Your task to perform on an android device: uninstall "Venmo" Image 0: 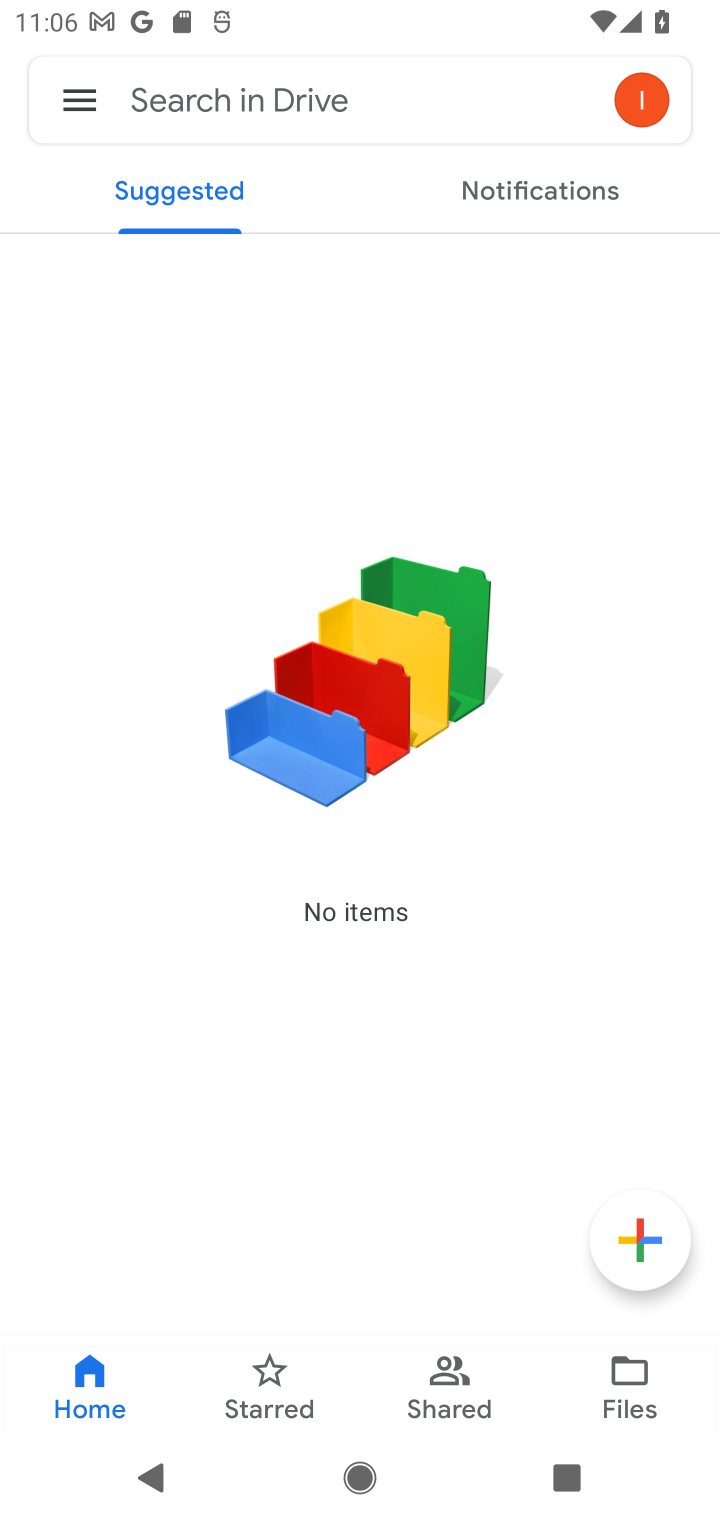
Step 0: press home button
Your task to perform on an android device: uninstall "Venmo" Image 1: 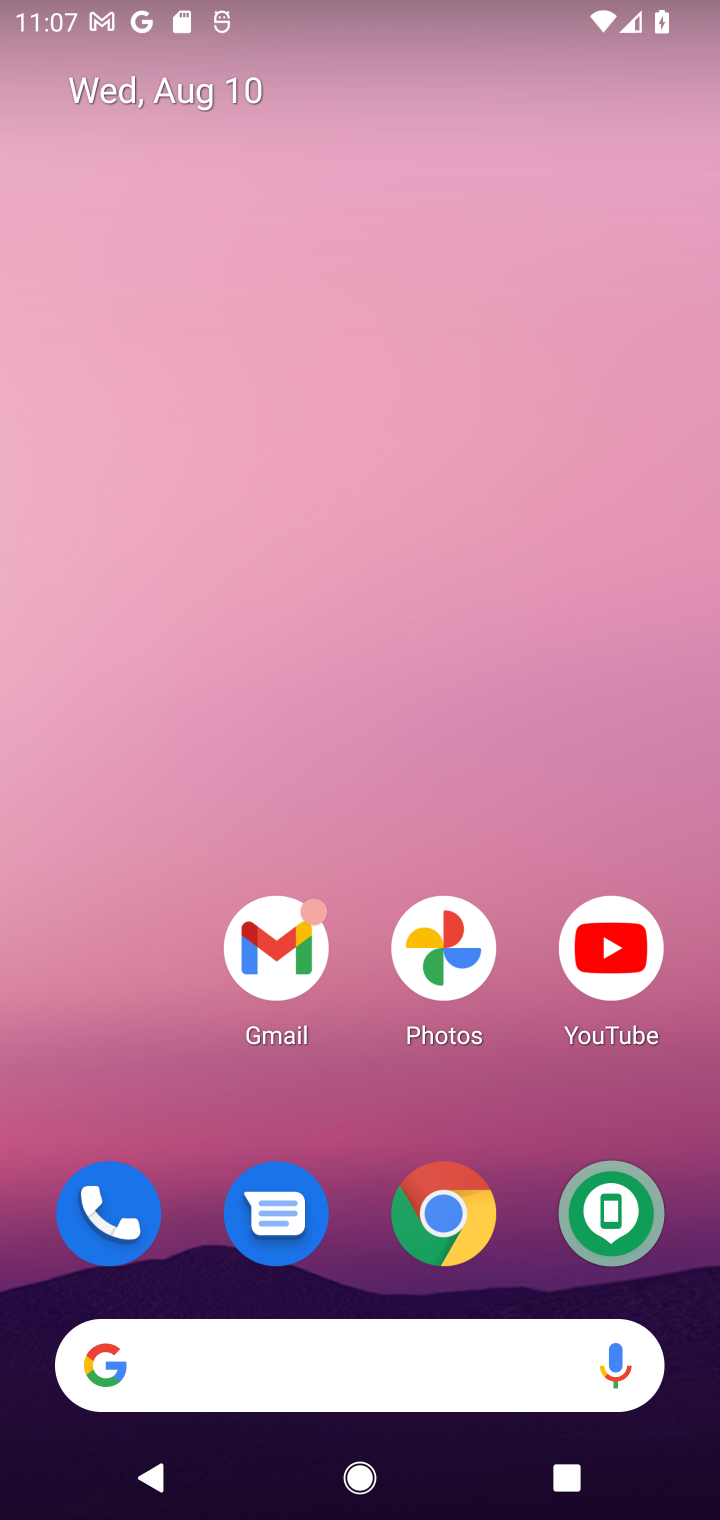
Step 1: drag from (407, 1349) to (404, 337)
Your task to perform on an android device: uninstall "Venmo" Image 2: 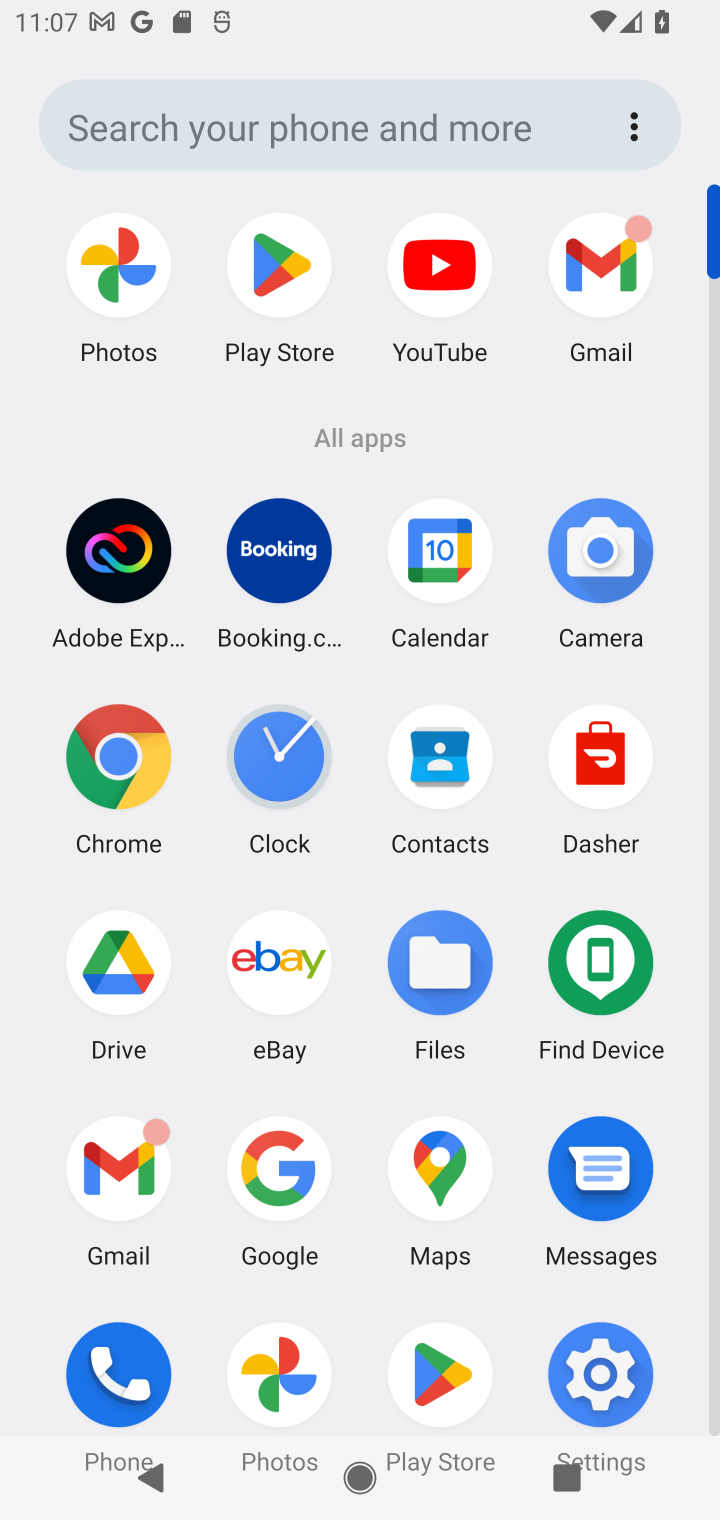
Step 2: click (283, 269)
Your task to perform on an android device: uninstall "Venmo" Image 3: 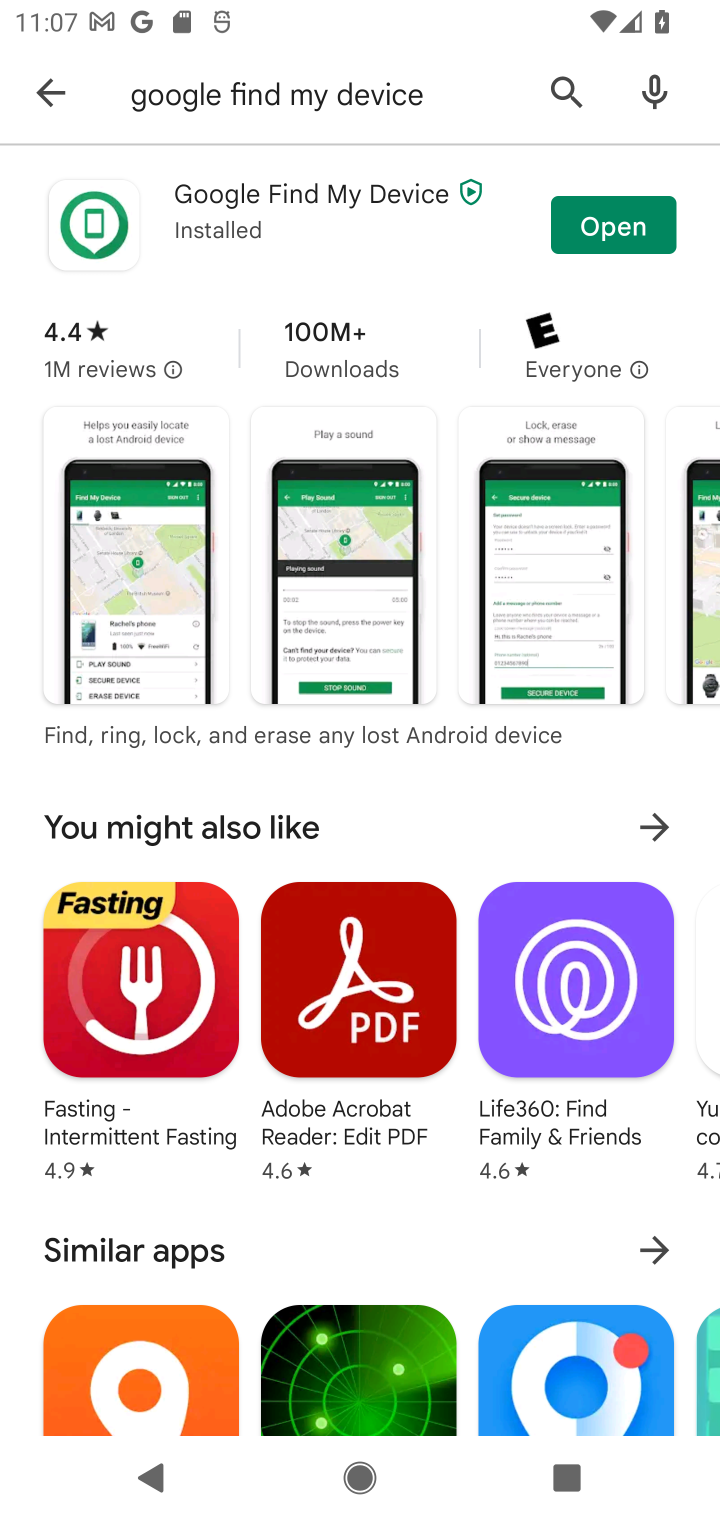
Step 3: press back button
Your task to perform on an android device: uninstall "Venmo" Image 4: 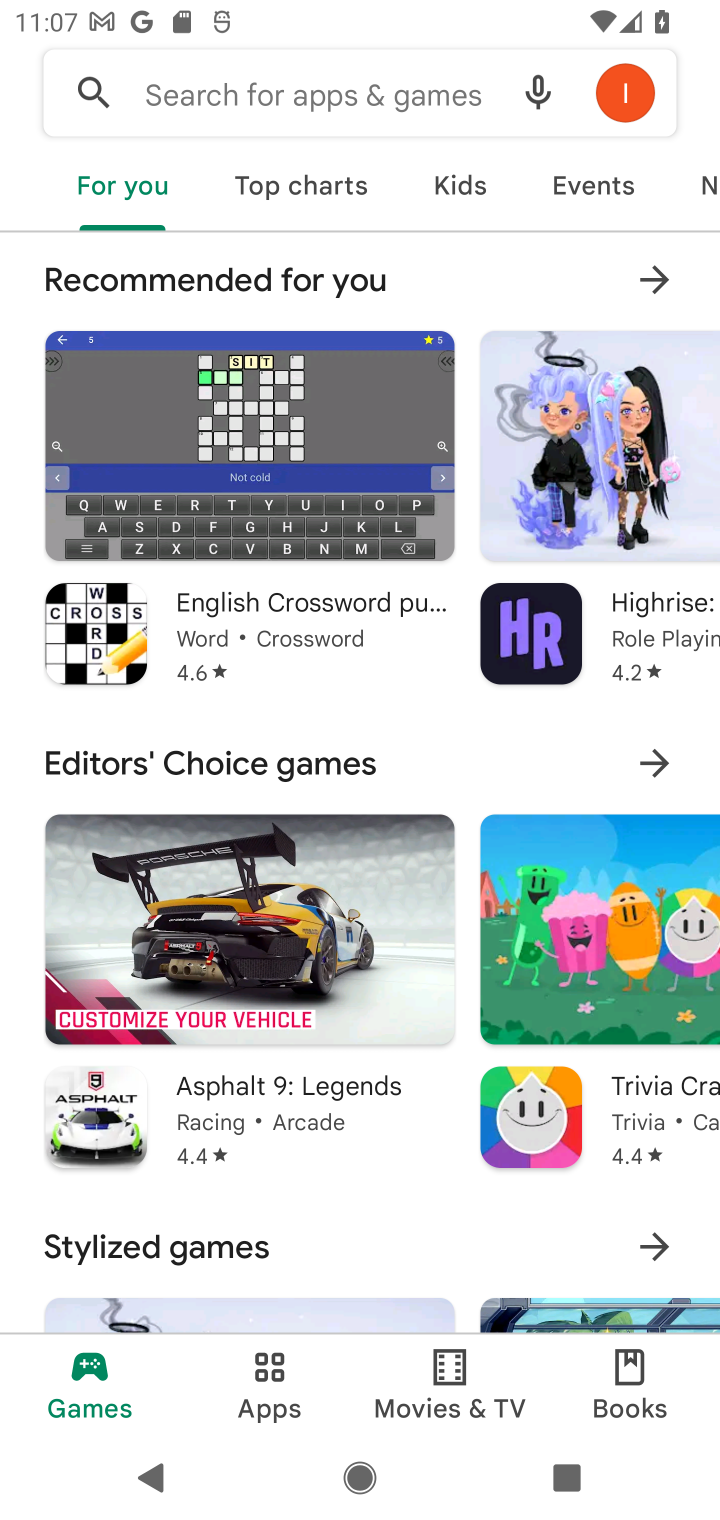
Step 4: click (355, 81)
Your task to perform on an android device: uninstall "Venmo" Image 5: 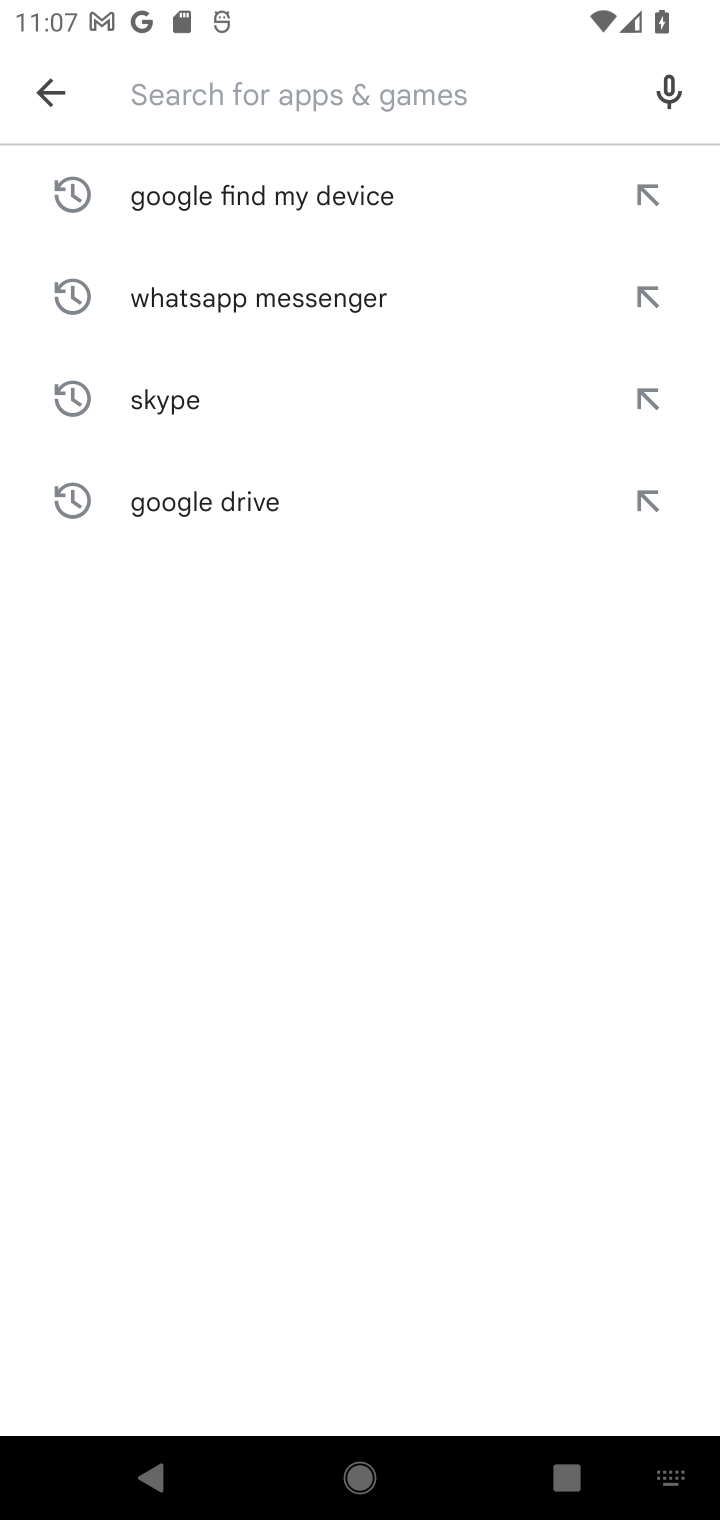
Step 5: type "Venmo"
Your task to perform on an android device: uninstall "Venmo" Image 6: 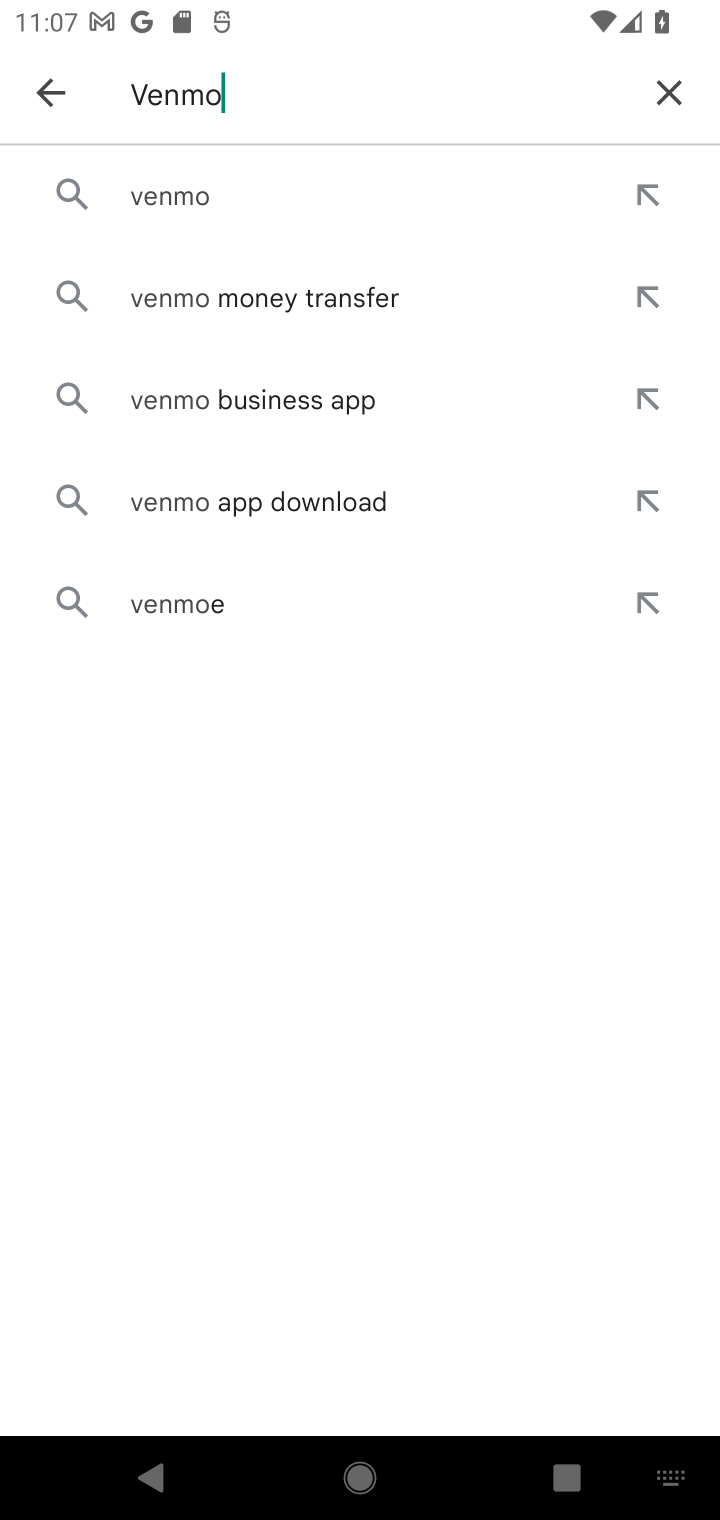
Step 6: click (159, 197)
Your task to perform on an android device: uninstall "Venmo" Image 7: 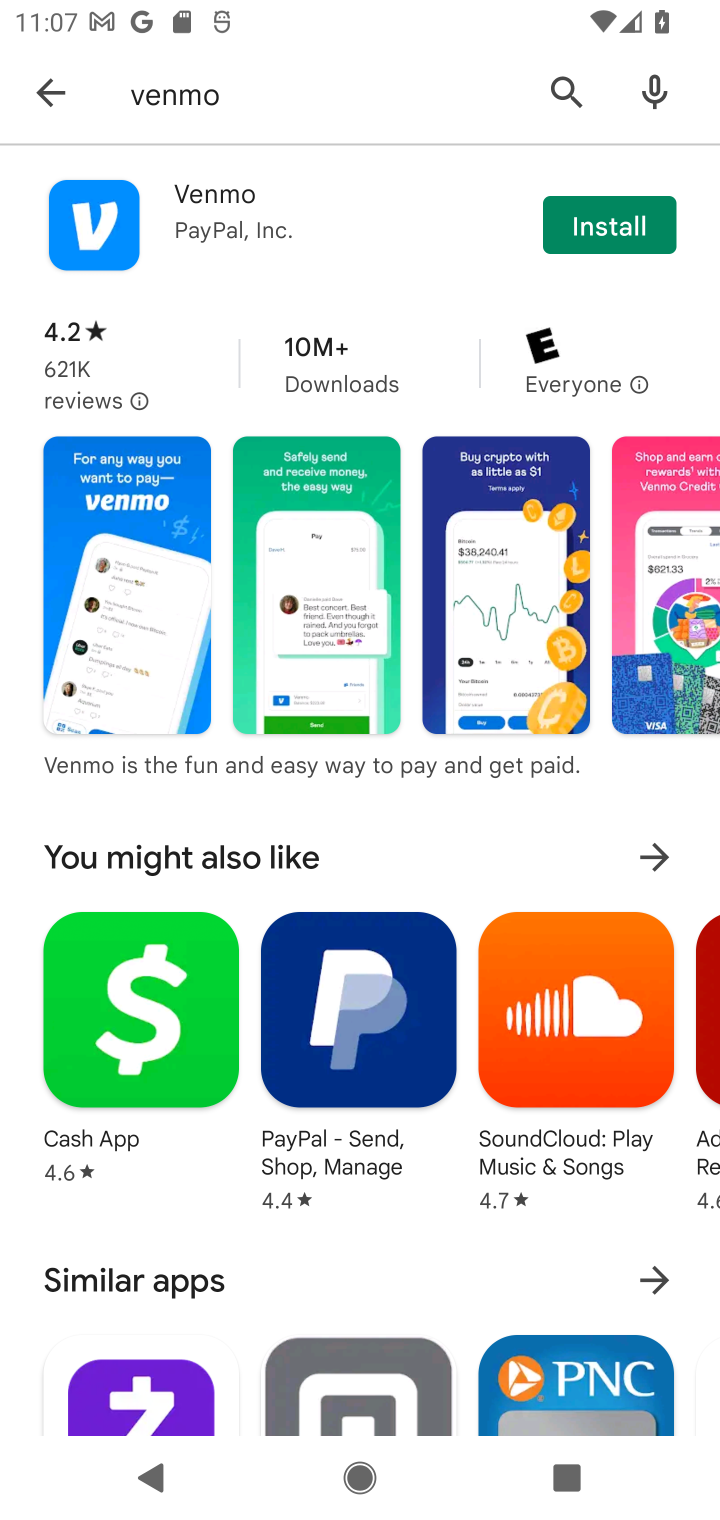
Step 7: task complete